Your task to perform on an android device: Open eBay Image 0: 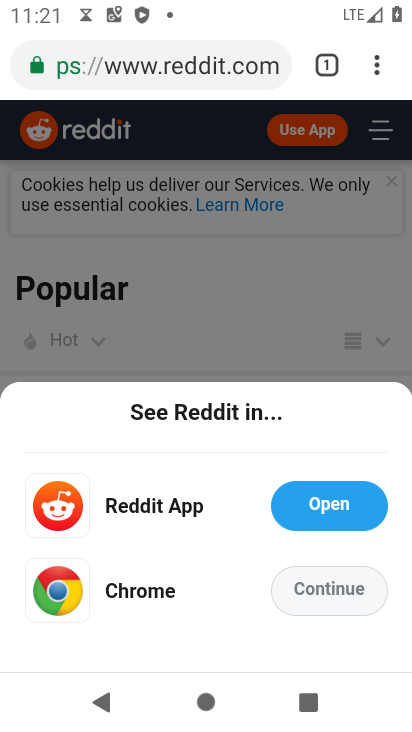
Step 0: click (198, 76)
Your task to perform on an android device: Open eBay Image 1: 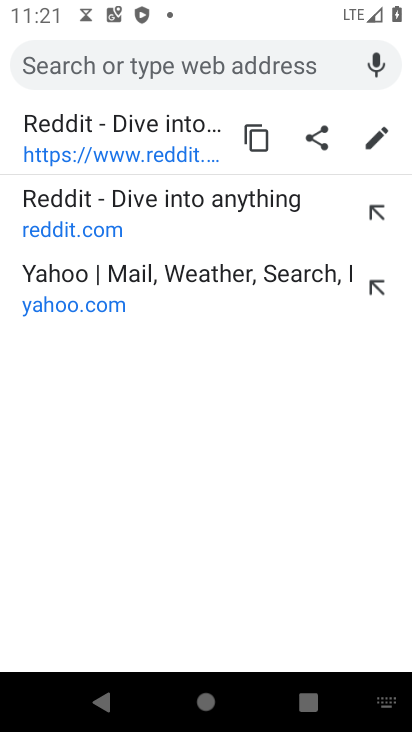
Step 1: type "ebay"
Your task to perform on an android device: Open eBay Image 2: 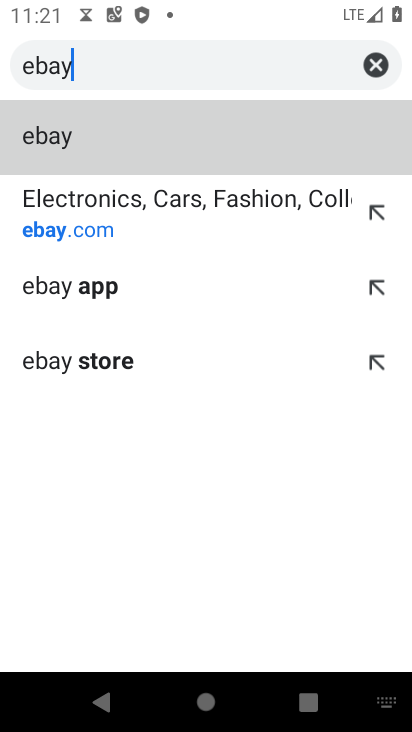
Step 2: click (72, 127)
Your task to perform on an android device: Open eBay Image 3: 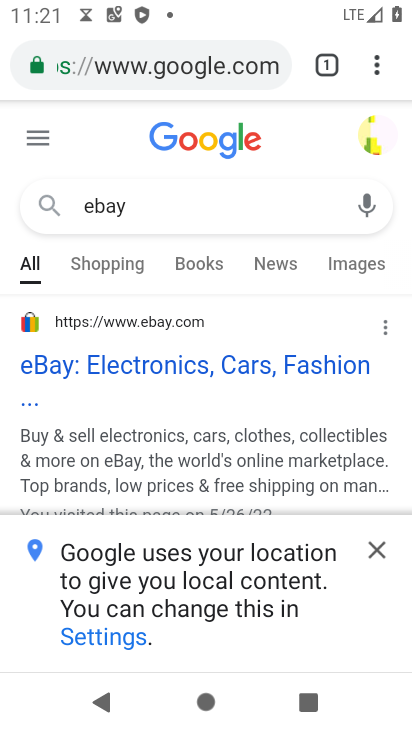
Step 3: click (47, 356)
Your task to perform on an android device: Open eBay Image 4: 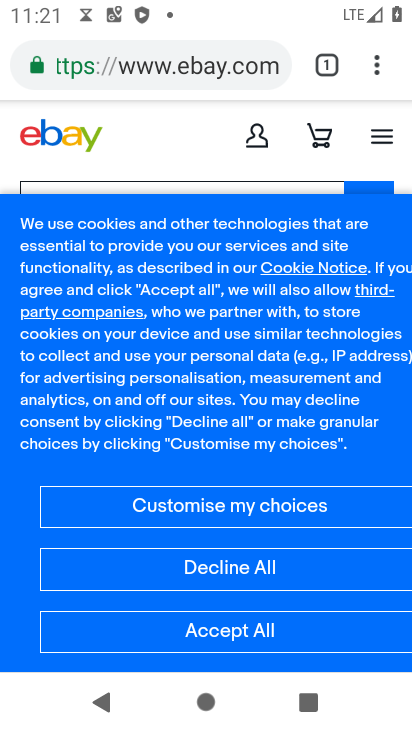
Step 4: task complete